Your task to perform on an android device: open the mobile data screen to see how much data has been used Image 0: 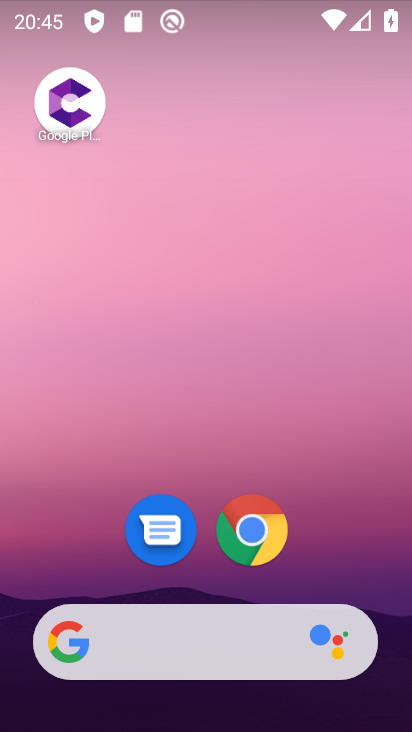
Step 0: drag from (231, 361) to (281, 96)
Your task to perform on an android device: open the mobile data screen to see how much data has been used Image 1: 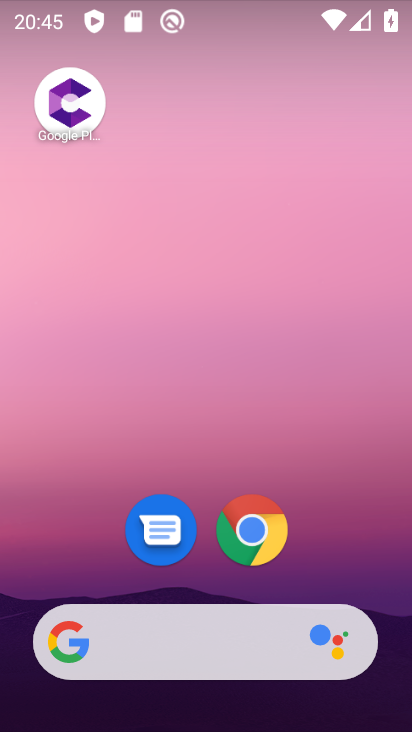
Step 1: drag from (331, 501) to (362, 1)
Your task to perform on an android device: open the mobile data screen to see how much data has been used Image 2: 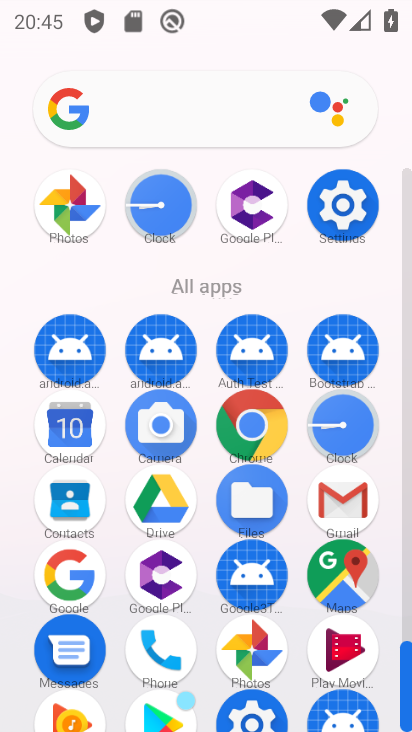
Step 2: click (340, 271)
Your task to perform on an android device: open the mobile data screen to see how much data has been used Image 3: 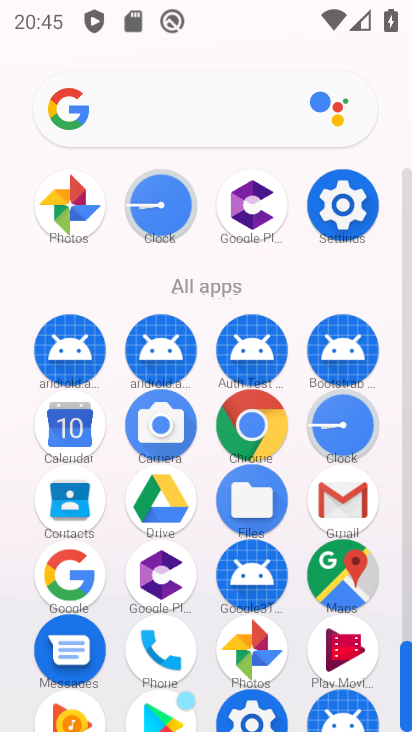
Step 3: click (336, 213)
Your task to perform on an android device: open the mobile data screen to see how much data has been used Image 4: 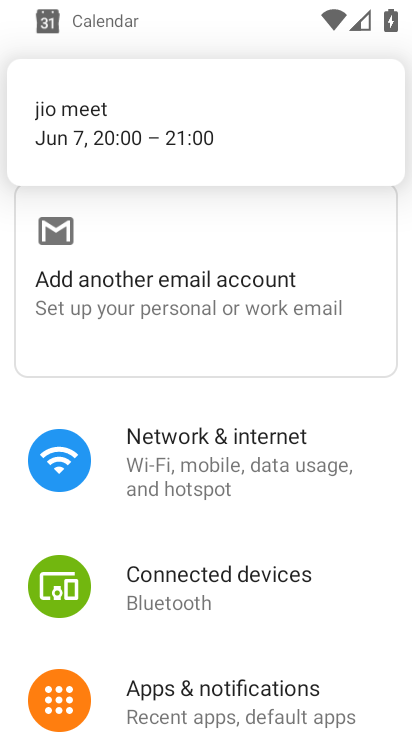
Step 4: drag from (239, 569) to (287, 288)
Your task to perform on an android device: open the mobile data screen to see how much data has been used Image 5: 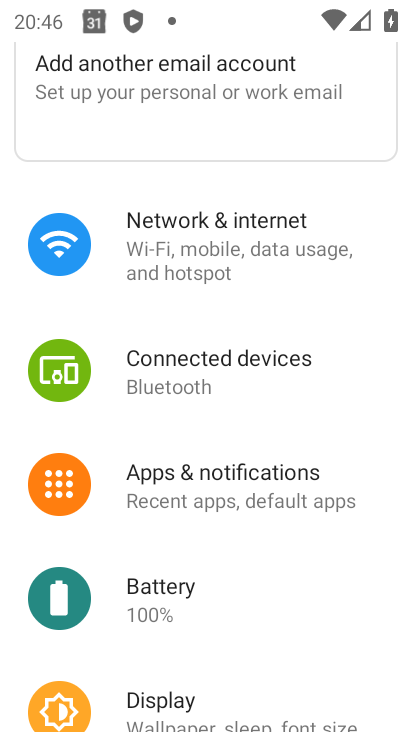
Step 5: click (246, 269)
Your task to perform on an android device: open the mobile data screen to see how much data has been used Image 6: 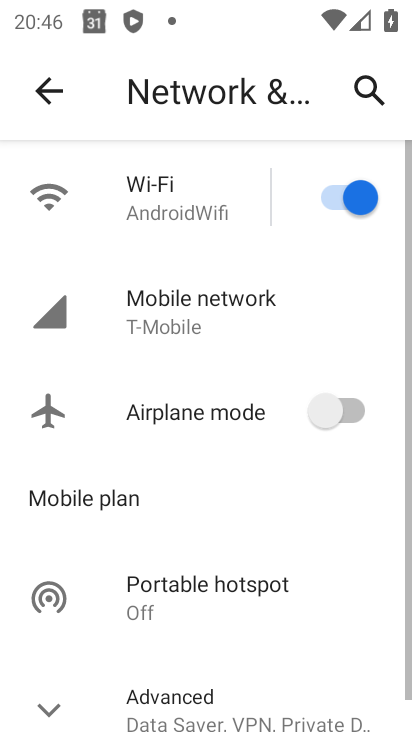
Step 6: click (178, 313)
Your task to perform on an android device: open the mobile data screen to see how much data has been used Image 7: 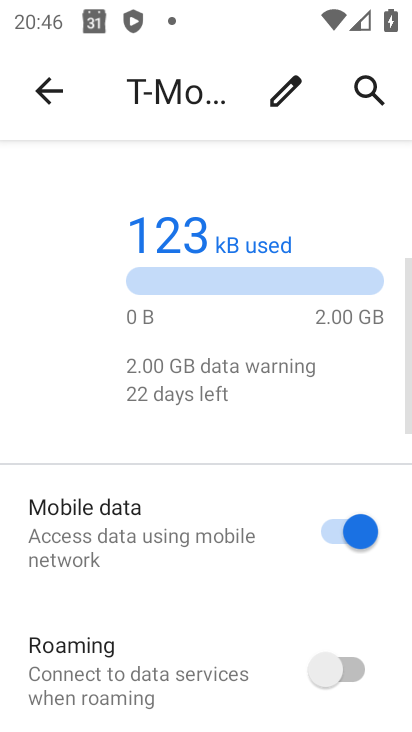
Step 7: drag from (134, 646) to (193, 244)
Your task to perform on an android device: open the mobile data screen to see how much data has been used Image 8: 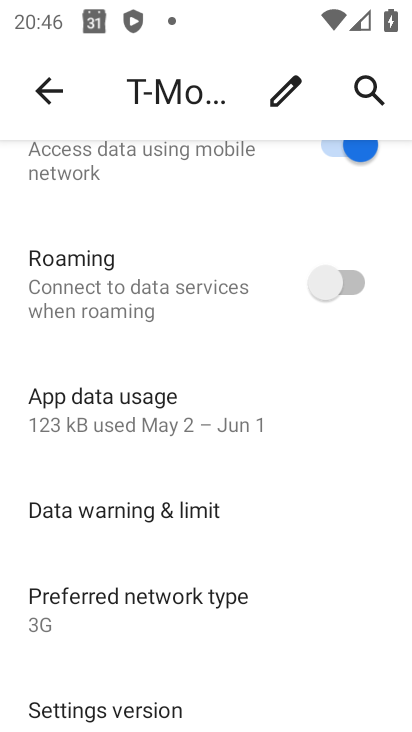
Step 8: click (174, 417)
Your task to perform on an android device: open the mobile data screen to see how much data has been used Image 9: 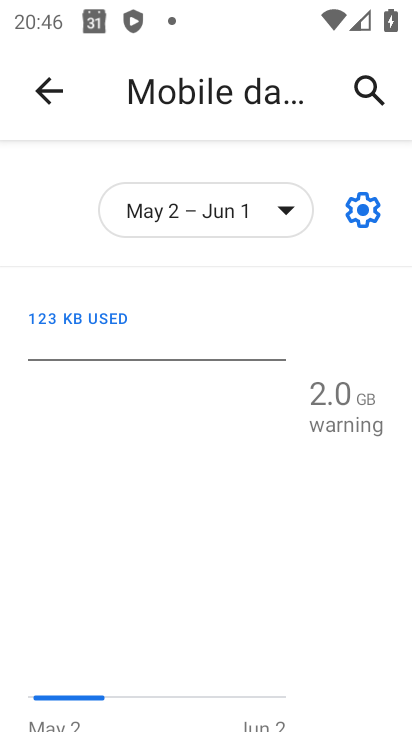
Step 9: task complete